Your task to perform on an android device: Open the Play Movies app and select the watchlist tab. Image 0: 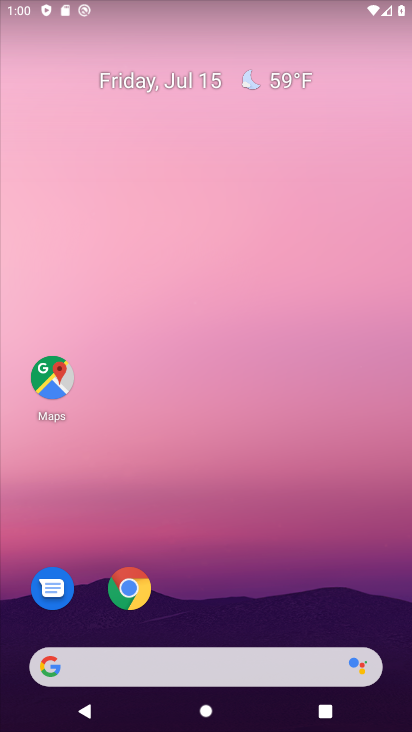
Step 0: drag from (242, 615) to (227, 126)
Your task to perform on an android device: Open the Play Movies app and select the watchlist tab. Image 1: 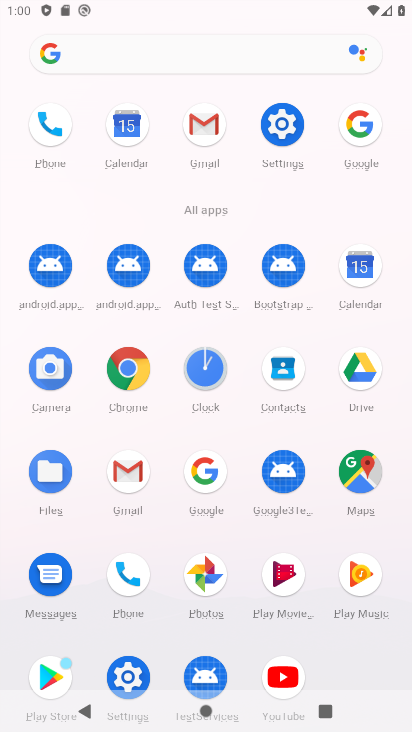
Step 1: click (283, 582)
Your task to perform on an android device: Open the Play Movies app and select the watchlist tab. Image 2: 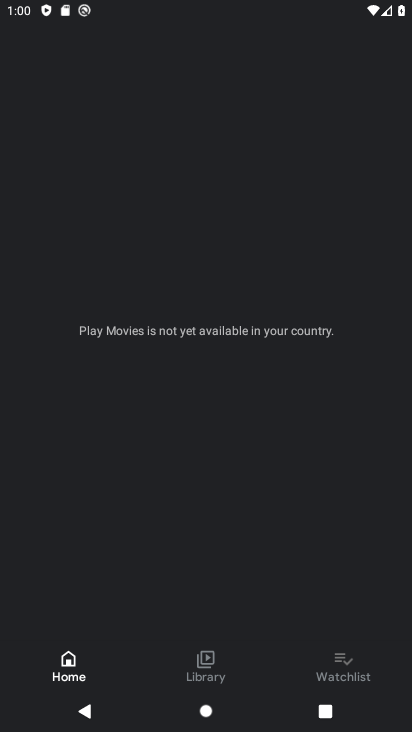
Step 2: click (338, 672)
Your task to perform on an android device: Open the Play Movies app and select the watchlist tab. Image 3: 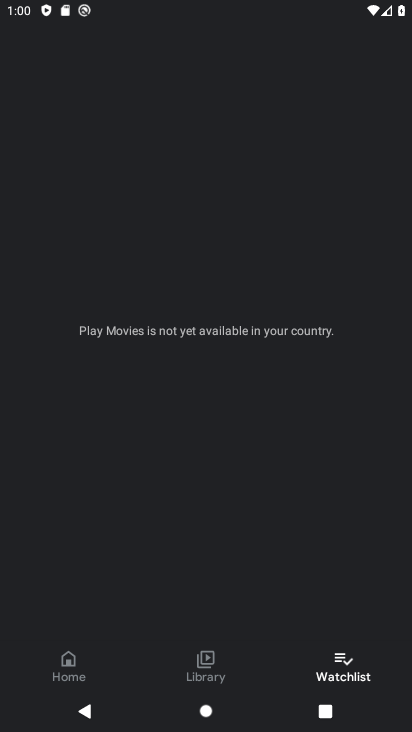
Step 3: task complete